Your task to perform on an android device: toggle airplane mode Image 0: 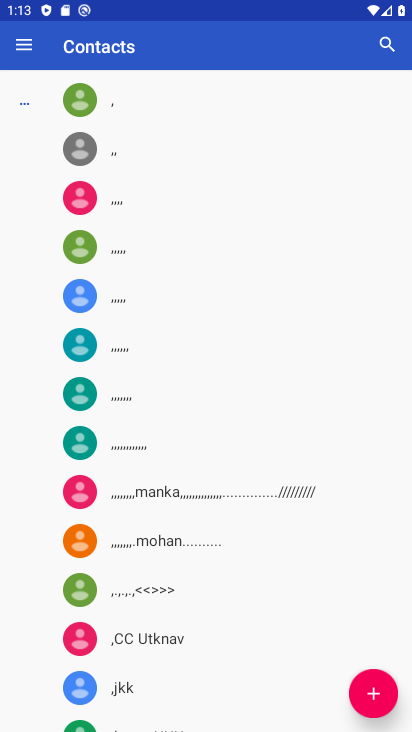
Step 0: press home button
Your task to perform on an android device: toggle airplane mode Image 1: 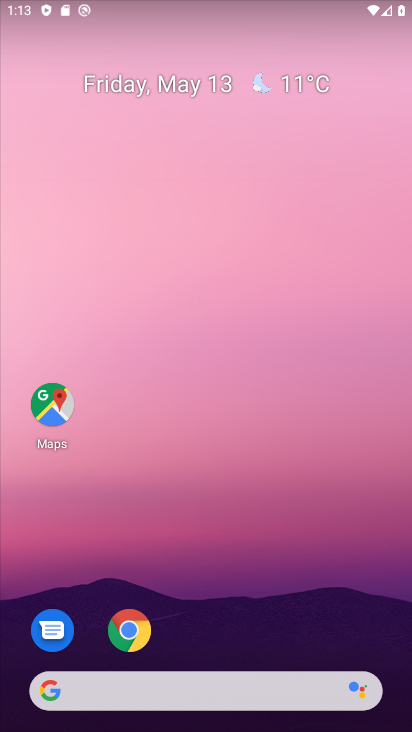
Step 1: drag from (193, 620) to (201, 92)
Your task to perform on an android device: toggle airplane mode Image 2: 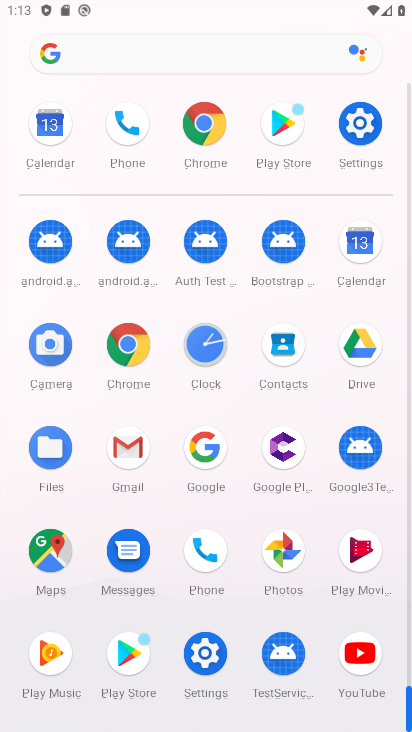
Step 2: click (371, 141)
Your task to perform on an android device: toggle airplane mode Image 3: 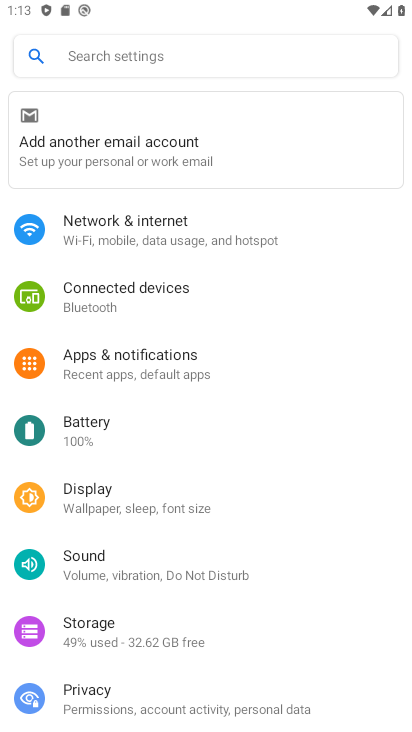
Step 3: click (237, 243)
Your task to perform on an android device: toggle airplane mode Image 4: 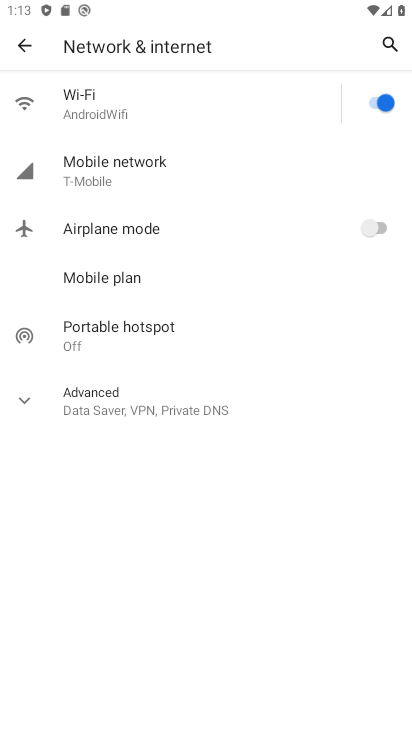
Step 4: click (351, 238)
Your task to perform on an android device: toggle airplane mode Image 5: 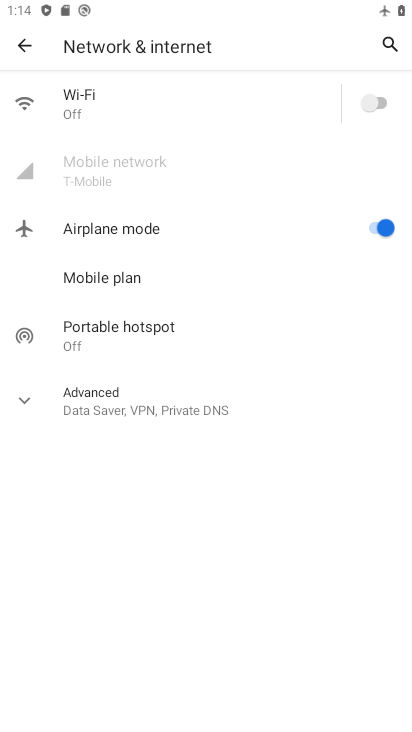
Step 5: drag from (235, 6) to (191, 442)
Your task to perform on an android device: toggle airplane mode Image 6: 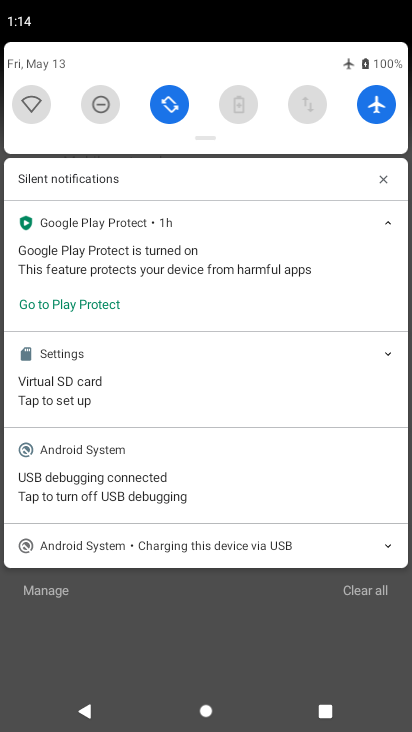
Step 6: click (34, 113)
Your task to perform on an android device: toggle airplane mode Image 7: 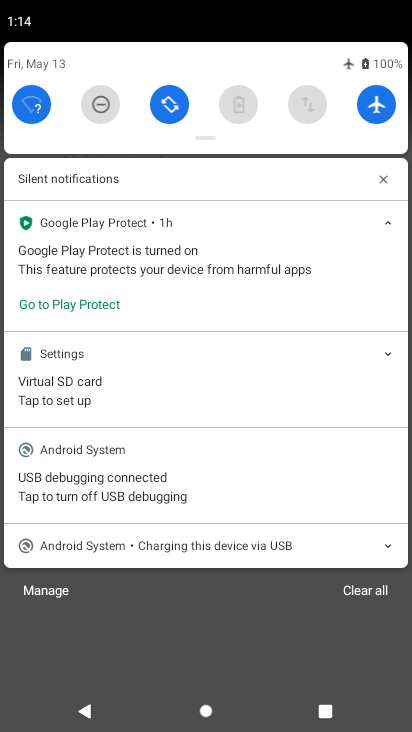
Step 7: click (361, 588)
Your task to perform on an android device: toggle airplane mode Image 8: 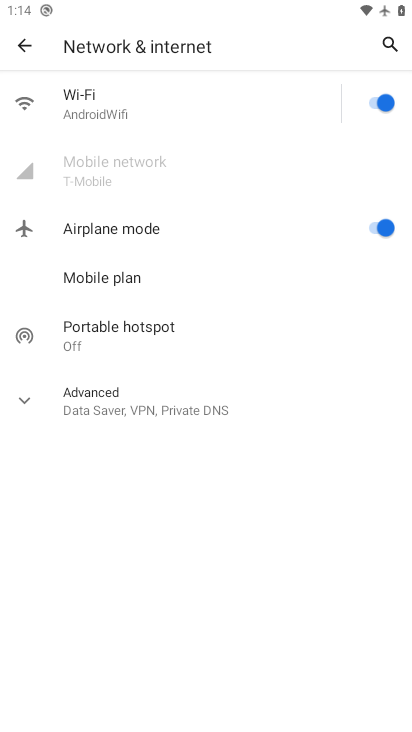
Step 8: task complete